Your task to perform on an android device: Search for sushi restaurants on Maps Image 0: 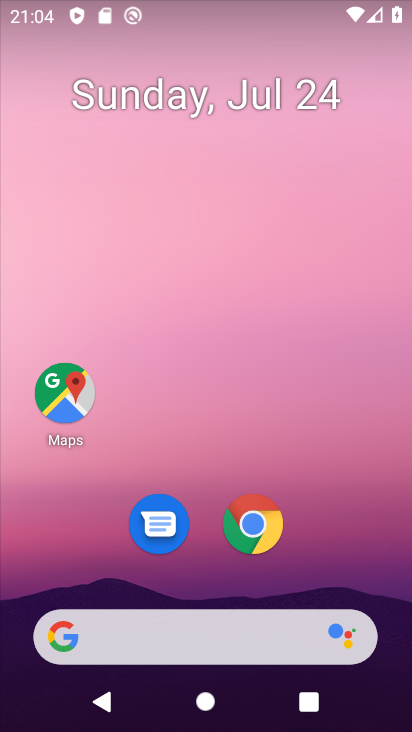
Step 0: press home button
Your task to perform on an android device: Search for sushi restaurants on Maps Image 1: 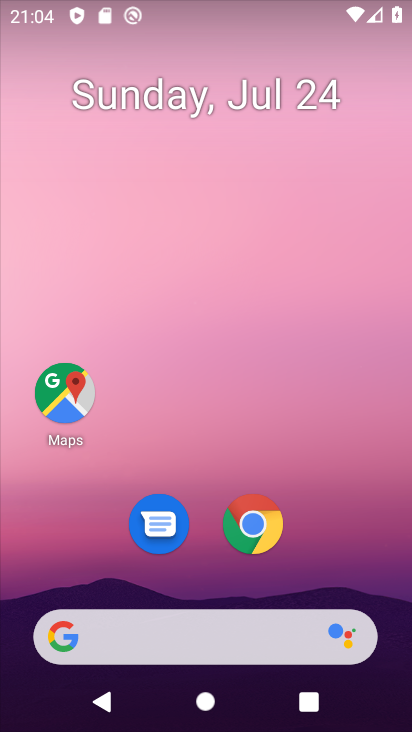
Step 1: click (64, 398)
Your task to perform on an android device: Search for sushi restaurants on Maps Image 2: 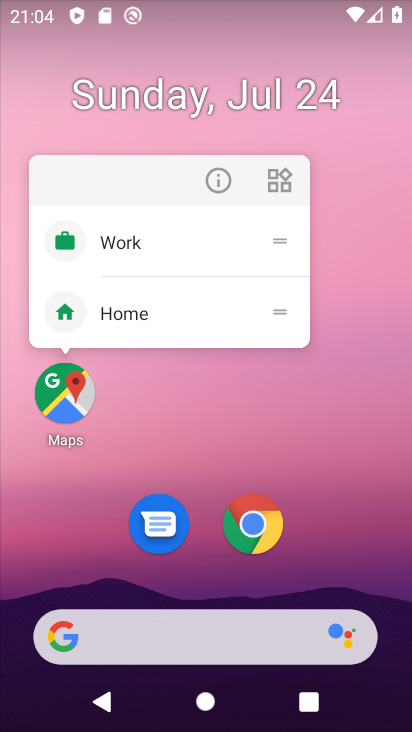
Step 2: click (68, 394)
Your task to perform on an android device: Search for sushi restaurants on Maps Image 3: 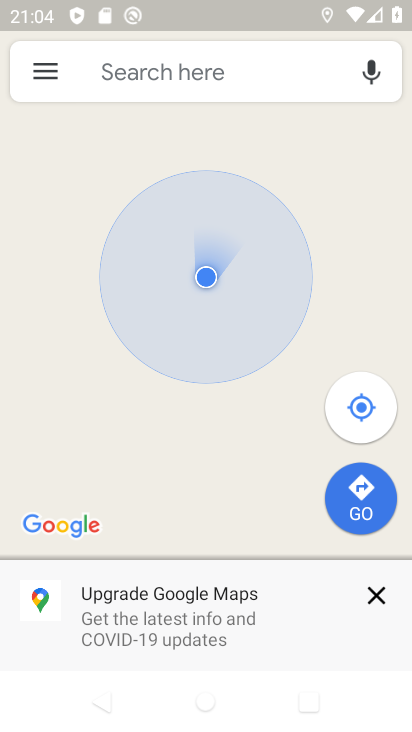
Step 3: click (197, 66)
Your task to perform on an android device: Search for sushi restaurants on Maps Image 4: 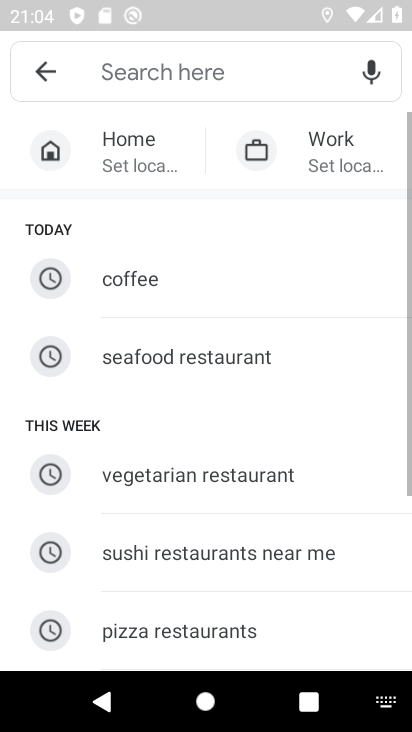
Step 4: click (182, 551)
Your task to perform on an android device: Search for sushi restaurants on Maps Image 5: 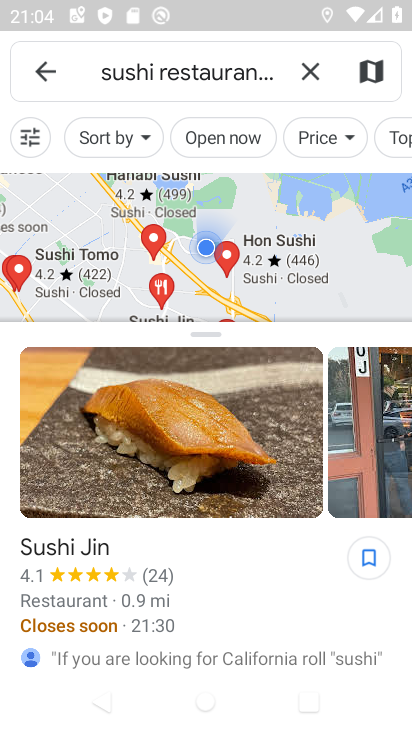
Step 5: task complete